Your task to perform on an android device: Do I have any events this weekend? Image 0: 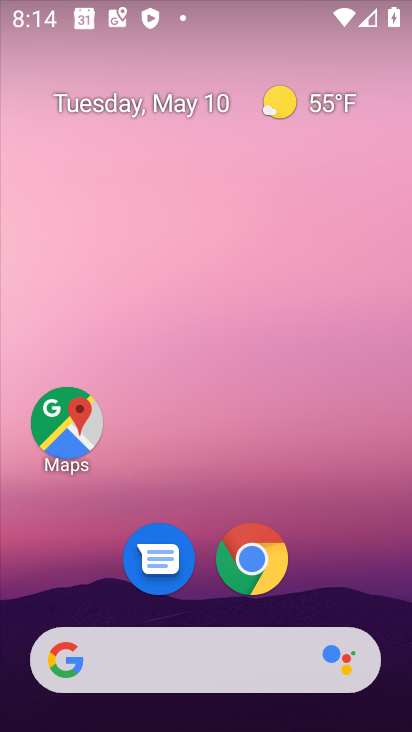
Step 0: drag from (214, 726) to (185, 212)
Your task to perform on an android device: Do I have any events this weekend? Image 1: 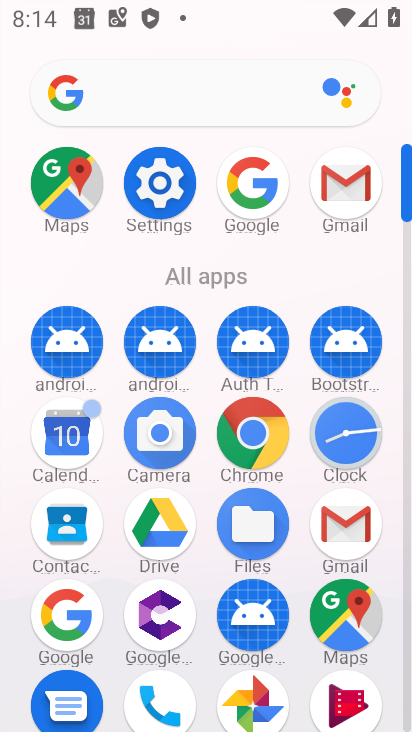
Step 1: click (70, 453)
Your task to perform on an android device: Do I have any events this weekend? Image 2: 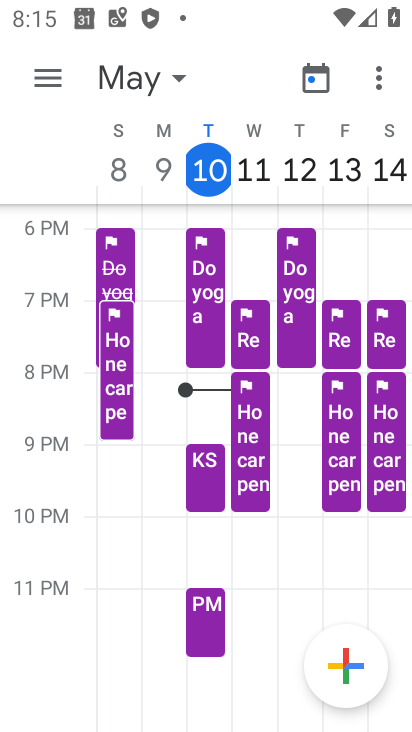
Step 2: click (384, 161)
Your task to perform on an android device: Do I have any events this weekend? Image 3: 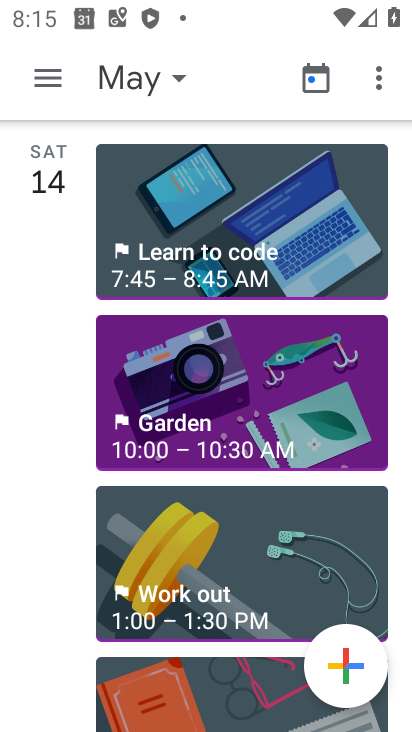
Step 3: task complete